Your task to perform on an android device: toggle sleep mode Image 0: 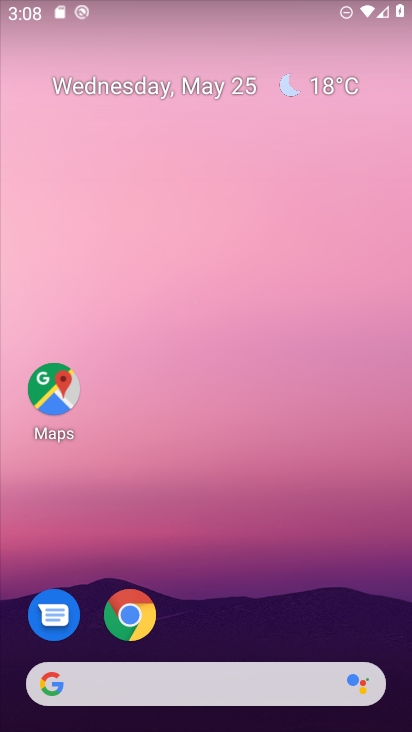
Step 0: drag from (290, 551) to (335, 58)
Your task to perform on an android device: toggle sleep mode Image 1: 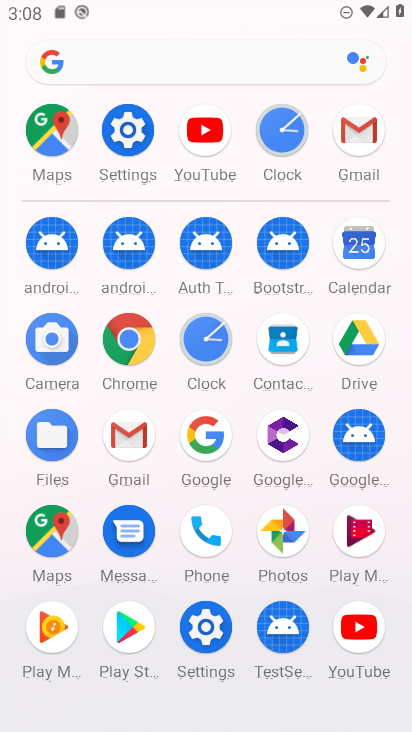
Step 1: click (128, 130)
Your task to perform on an android device: toggle sleep mode Image 2: 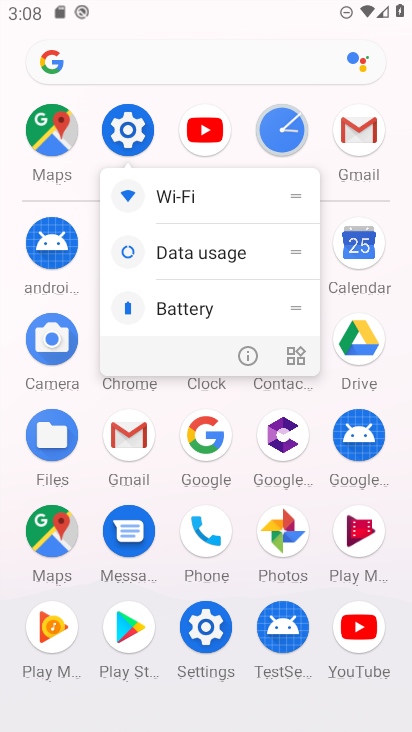
Step 2: click (128, 130)
Your task to perform on an android device: toggle sleep mode Image 3: 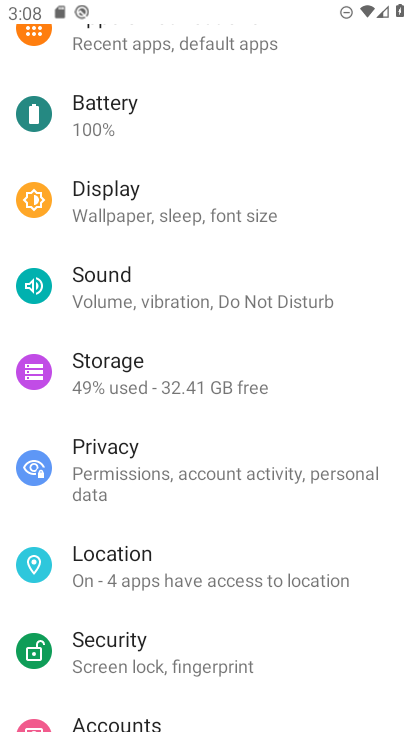
Step 3: click (143, 200)
Your task to perform on an android device: toggle sleep mode Image 4: 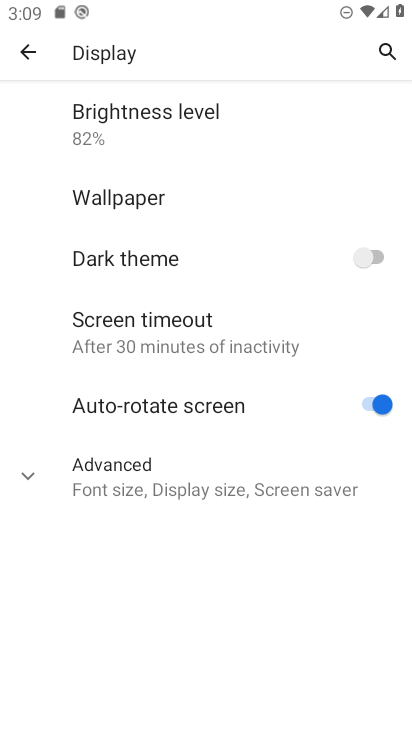
Step 4: click (20, 471)
Your task to perform on an android device: toggle sleep mode Image 5: 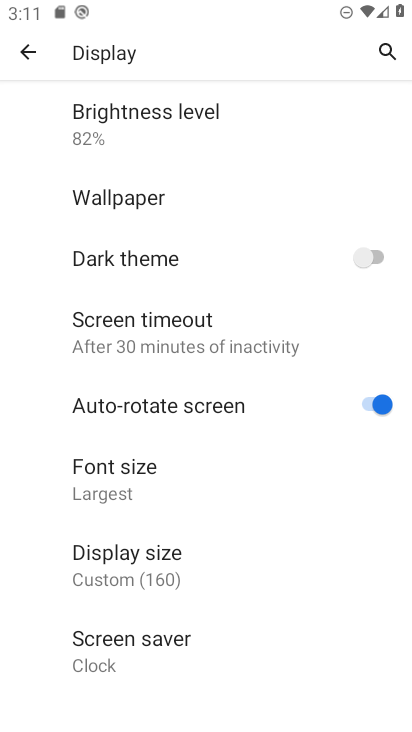
Step 5: task complete